Your task to perform on an android device: Search for sushi restaurants on Maps Image 0: 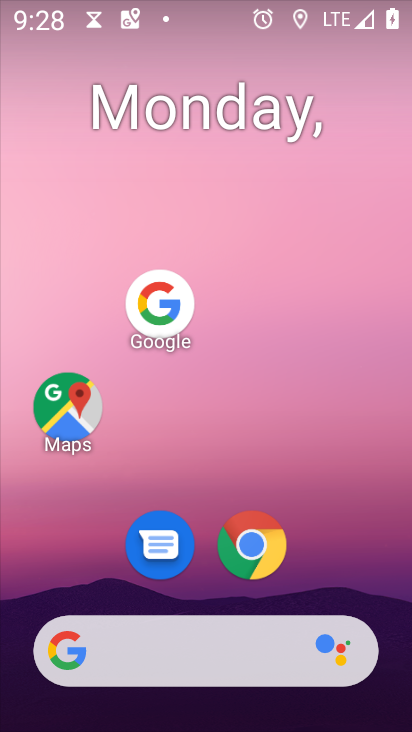
Step 0: press home button
Your task to perform on an android device: Search for sushi restaurants on Maps Image 1: 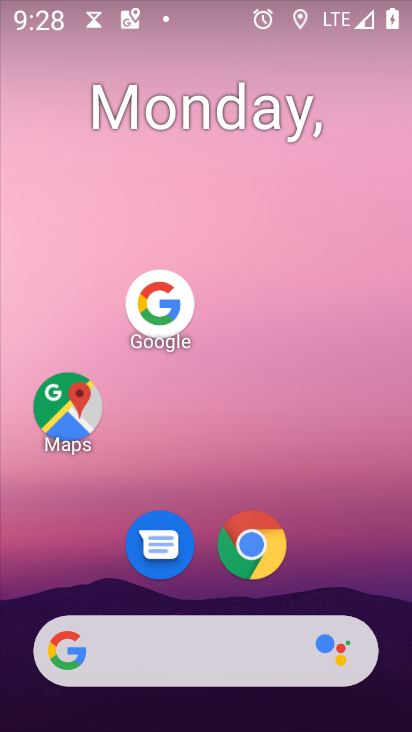
Step 1: click (68, 420)
Your task to perform on an android device: Search for sushi restaurants on Maps Image 2: 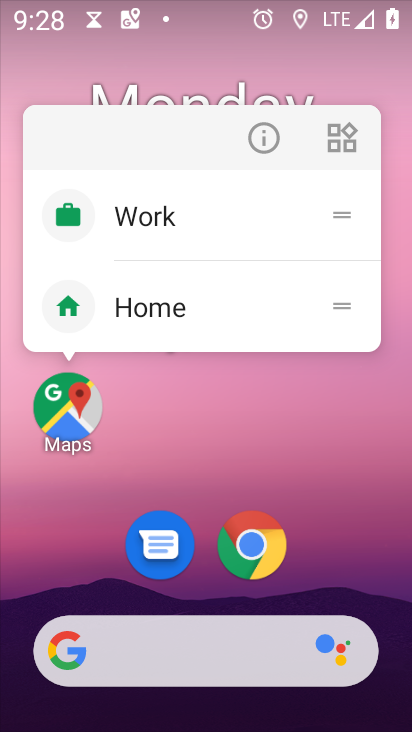
Step 2: click (68, 419)
Your task to perform on an android device: Search for sushi restaurants on Maps Image 3: 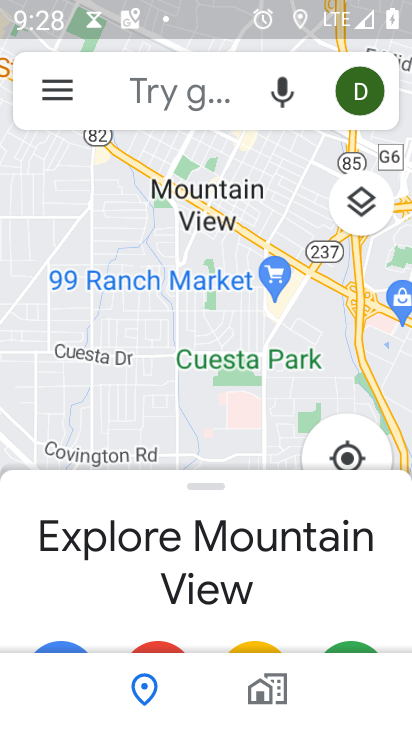
Step 3: click (186, 86)
Your task to perform on an android device: Search for sushi restaurants on Maps Image 4: 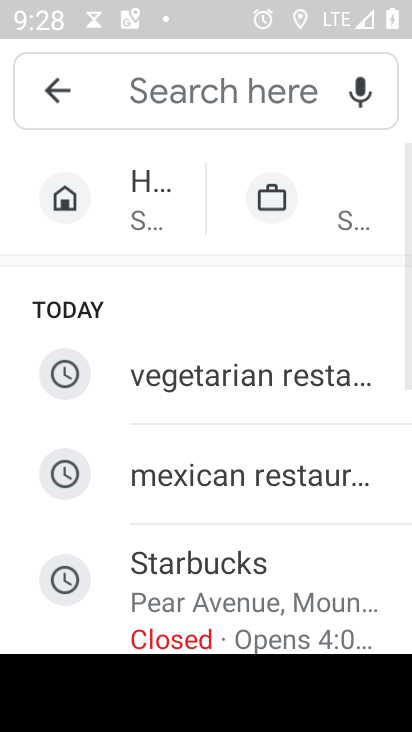
Step 4: drag from (249, 548) to (376, 259)
Your task to perform on an android device: Search for sushi restaurants on Maps Image 5: 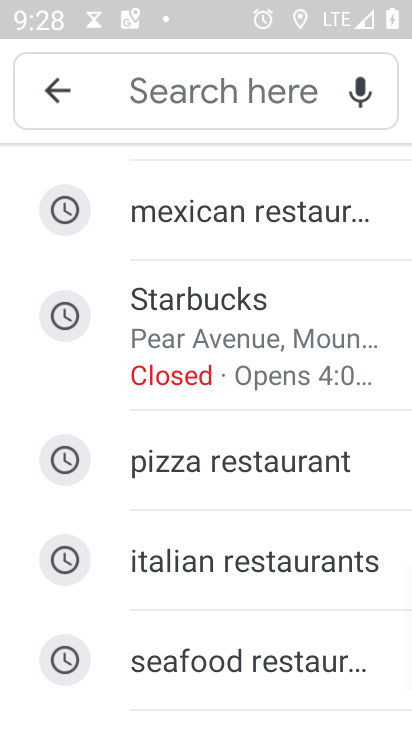
Step 5: drag from (223, 608) to (366, 258)
Your task to perform on an android device: Search for sushi restaurants on Maps Image 6: 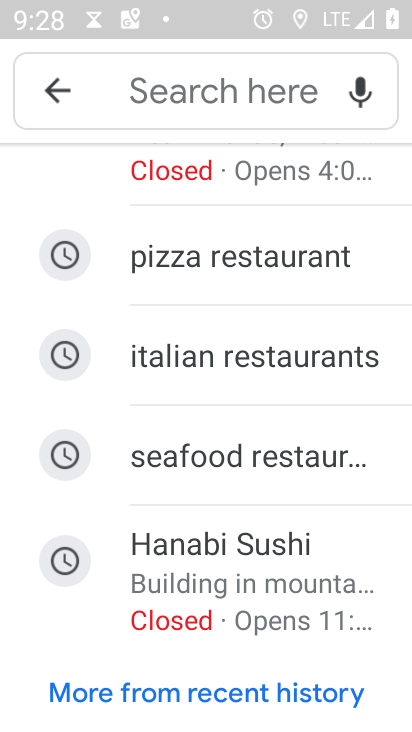
Step 6: click (149, 93)
Your task to perform on an android device: Search for sushi restaurants on Maps Image 7: 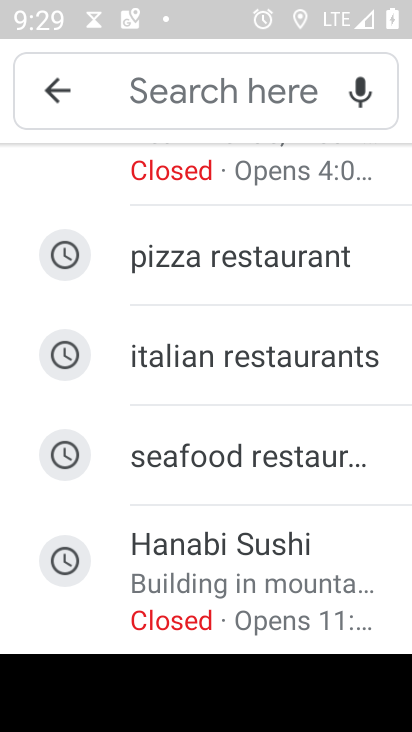
Step 7: type "sushi"
Your task to perform on an android device: Search for sushi restaurants on Maps Image 8: 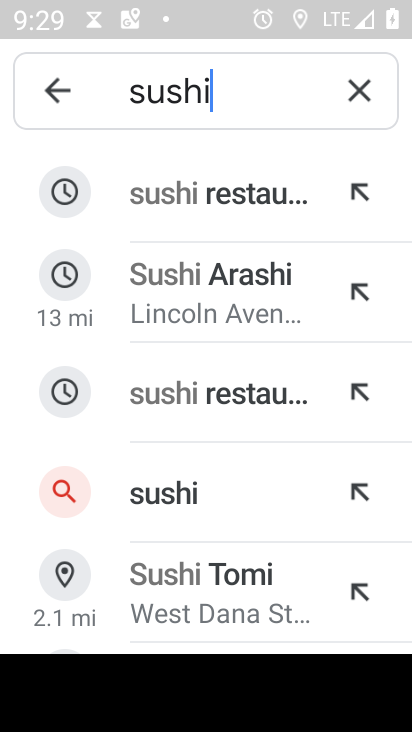
Step 8: click (252, 180)
Your task to perform on an android device: Search for sushi restaurants on Maps Image 9: 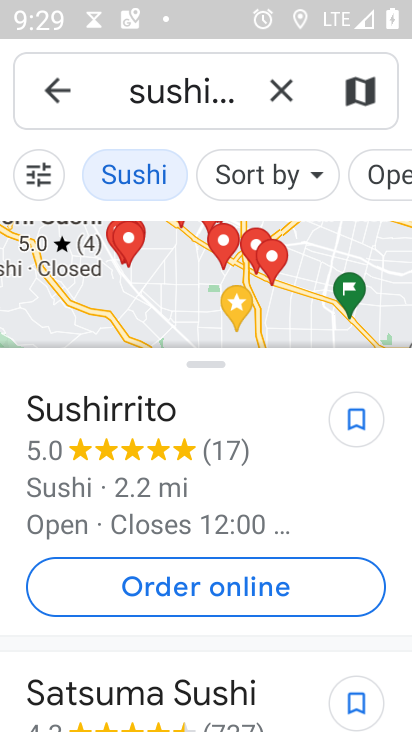
Step 9: task complete